Your task to perform on an android device: Go to ESPN.com Image 0: 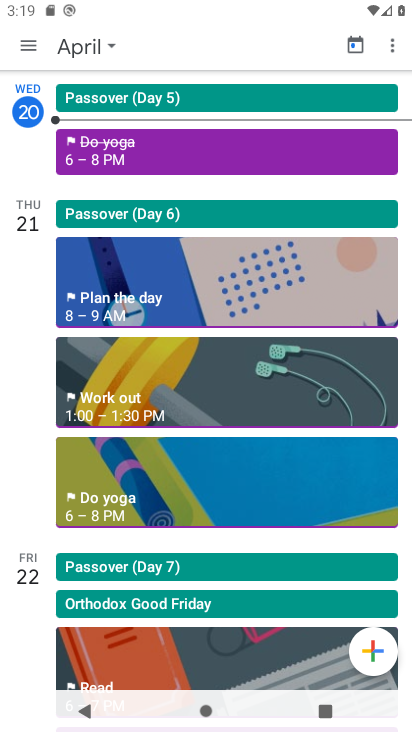
Step 0: press home button
Your task to perform on an android device: Go to ESPN.com Image 1: 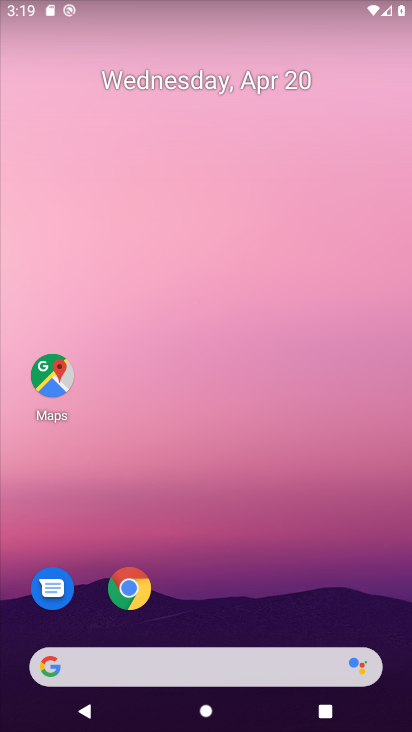
Step 1: click (121, 587)
Your task to perform on an android device: Go to ESPN.com Image 2: 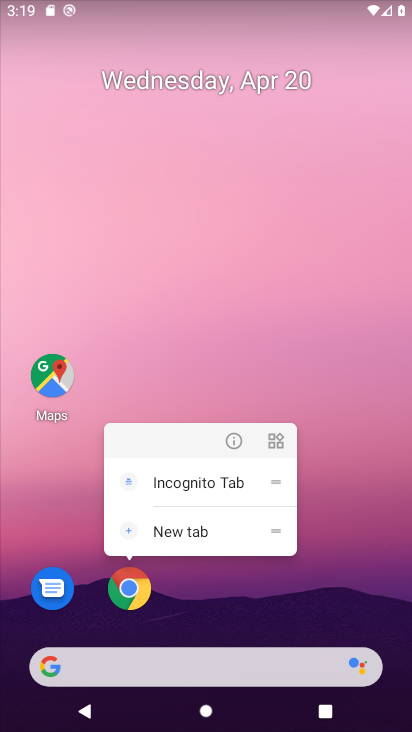
Step 2: click (124, 583)
Your task to perform on an android device: Go to ESPN.com Image 3: 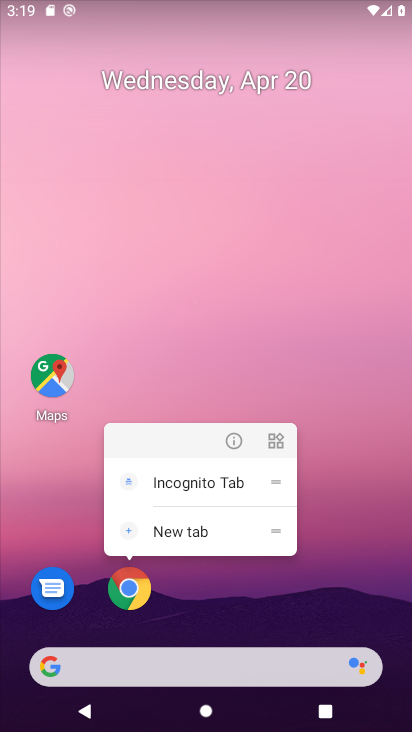
Step 3: click (126, 585)
Your task to perform on an android device: Go to ESPN.com Image 4: 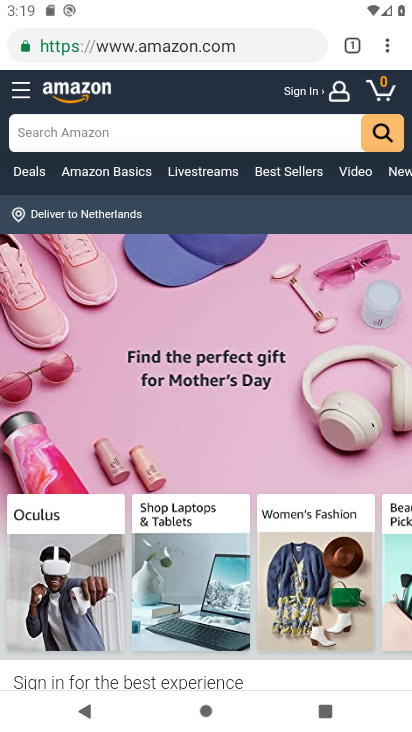
Step 4: click (212, 38)
Your task to perform on an android device: Go to ESPN.com Image 5: 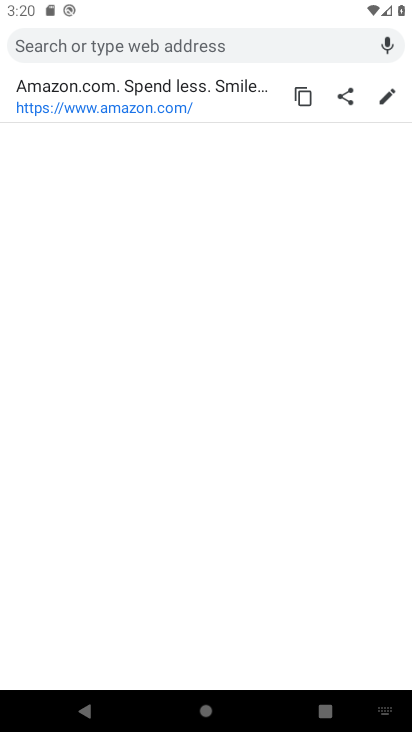
Step 5: type "ESPN.com"
Your task to perform on an android device: Go to ESPN.com Image 6: 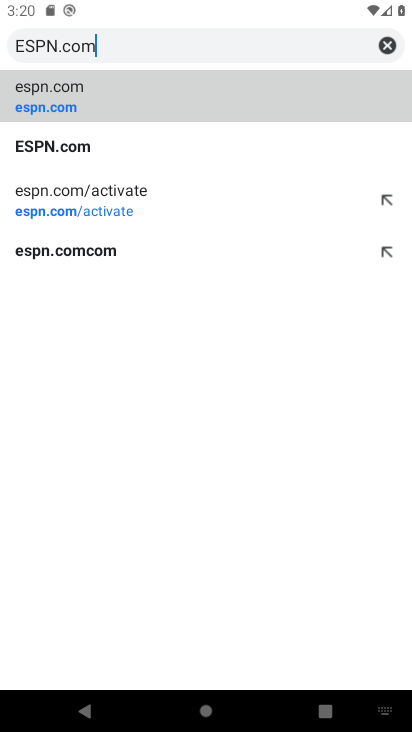
Step 6: click (46, 85)
Your task to perform on an android device: Go to ESPN.com Image 7: 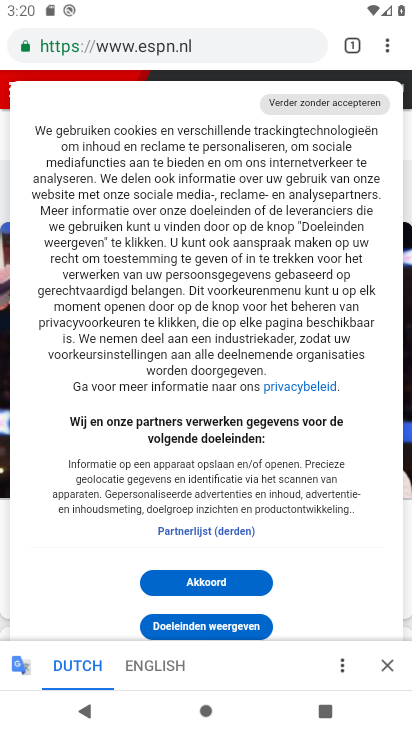
Step 7: task complete